Your task to perform on an android device: uninstall "Upside-Cash back on gas & food" Image 0: 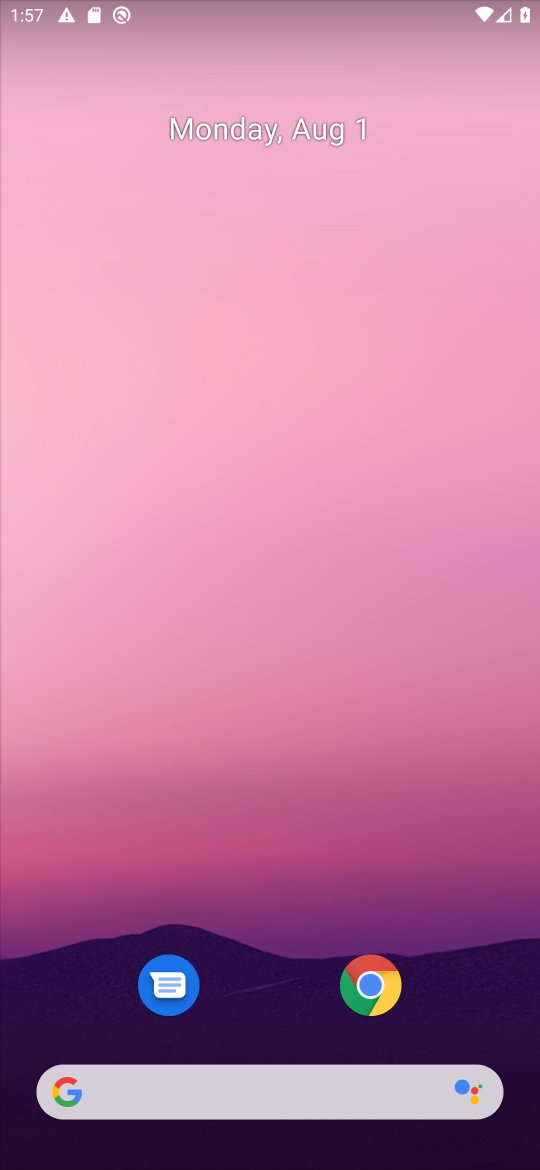
Step 0: drag from (273, 1126) to (234, 97)
Your task to perform on an android device: uninstall "Upside-Cash back on gas & food" Image 1: 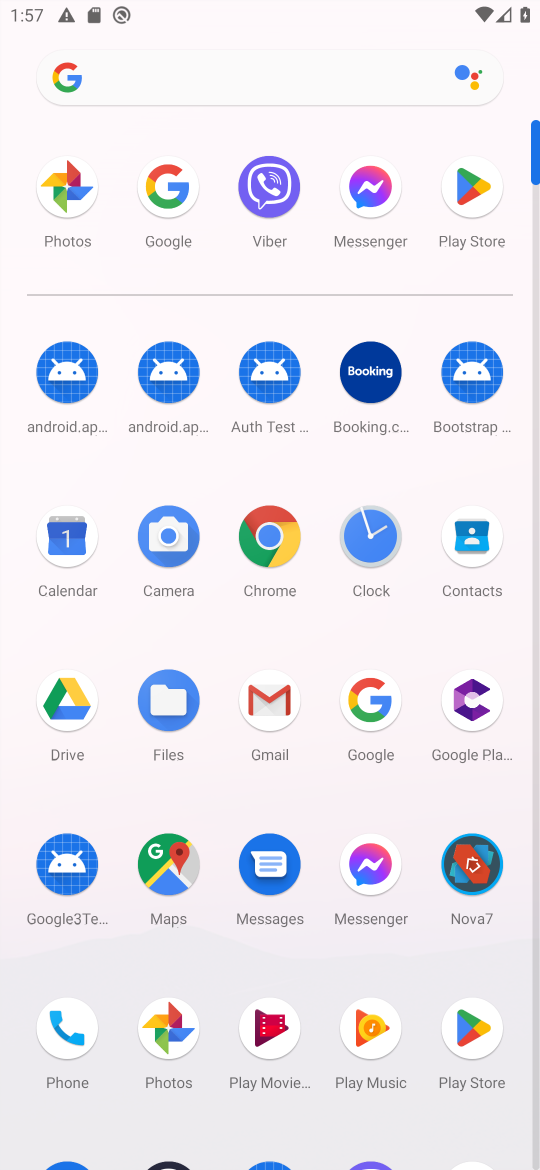
Step 1: click (468, 1023)
Your task to perform on an android device: uninstall "Upside-Cash back on gas & food" Image 2: 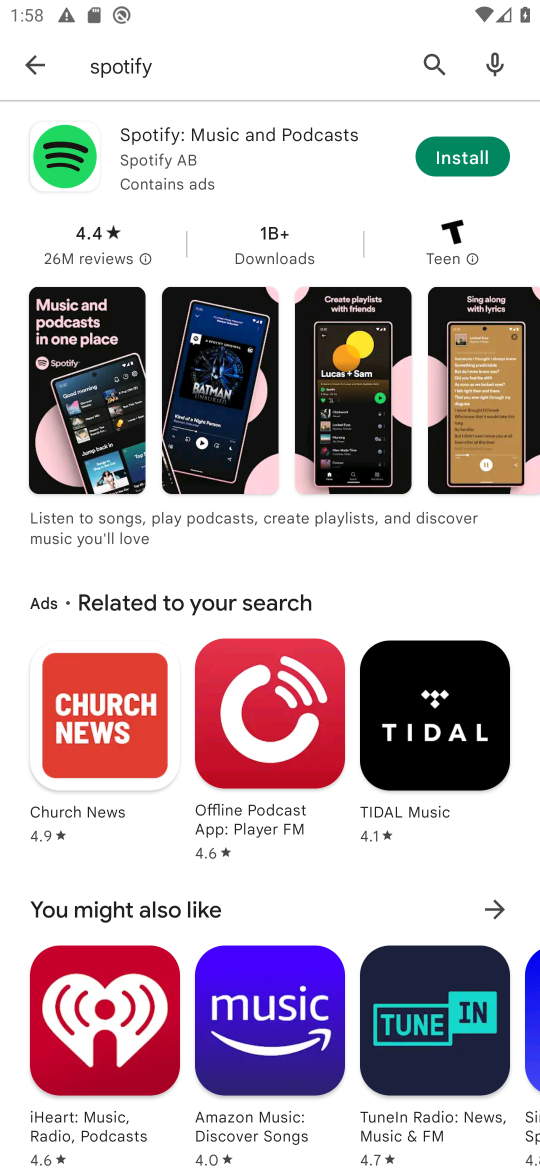
Step 2: click (431, 54)
Your task to perform on an android device: uninstall "Upside-Cash back on gas & food" Image 3: 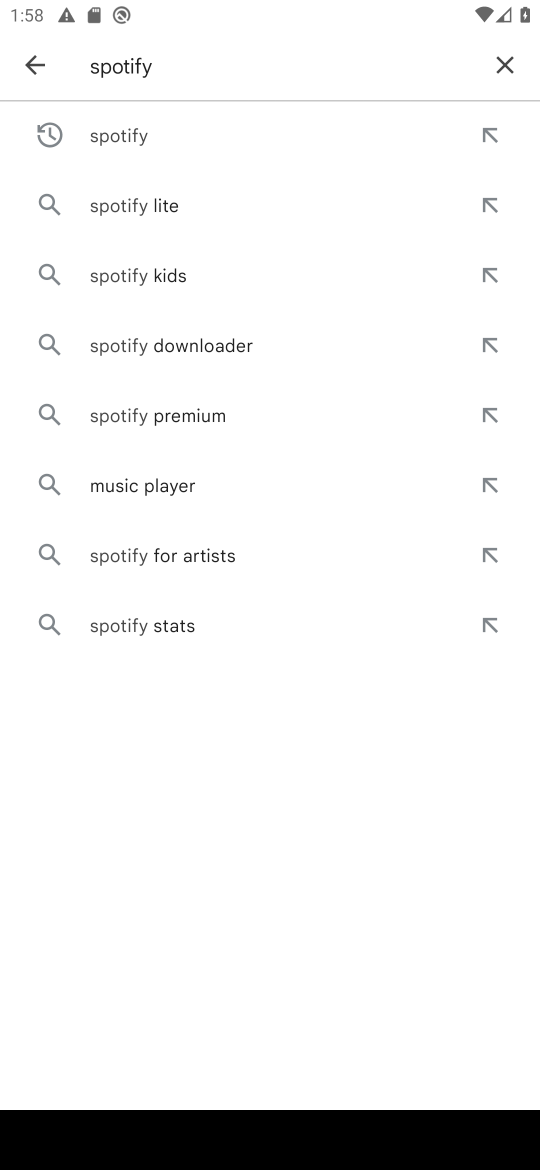
Step 3: click (497, 60)
Your task to perform on an android device: uninstall "Upside-Cash back on gas & food" Image 4: 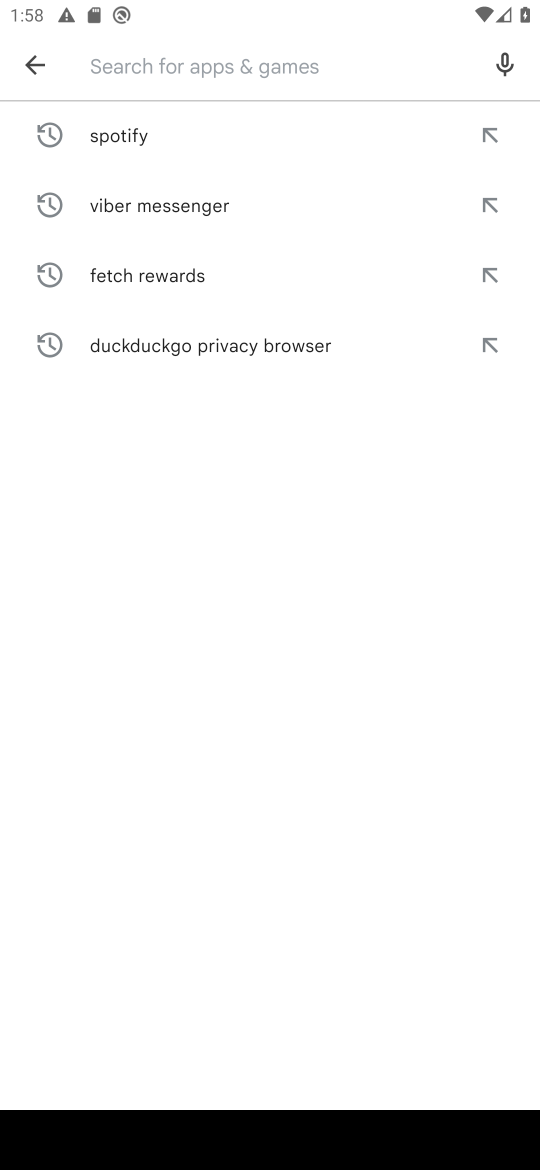
Step 4: type "Upside-Cash back on gas & food"
Your task to perform on an android device: uninstall "Upside-Cash back on gas & food" Image 5: 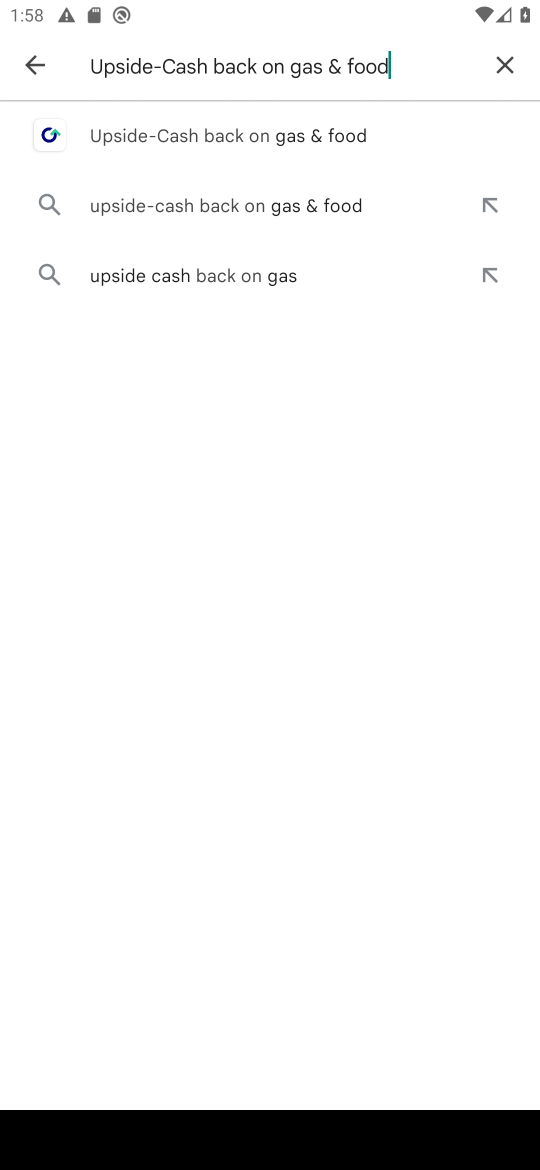
Step 5: type ""
Your task to perform on an android device: uninstall "Upside-Cash back on gas & food" Image 6: 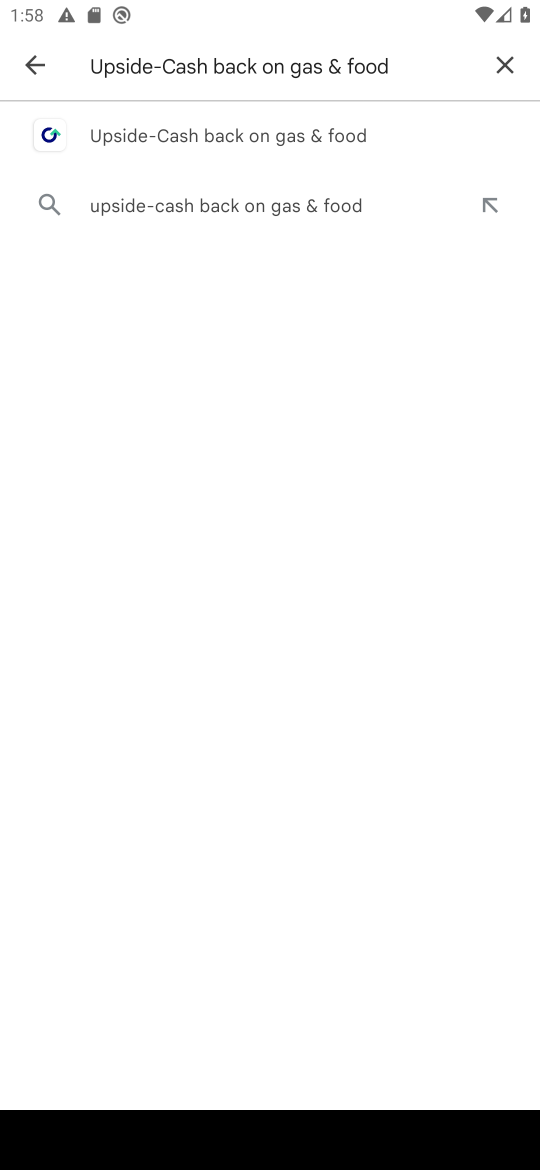
Step 6: click (236, 141)
Your task to perform on an android device: uninstall "Upside-Cash back on gas & food" Image 7: 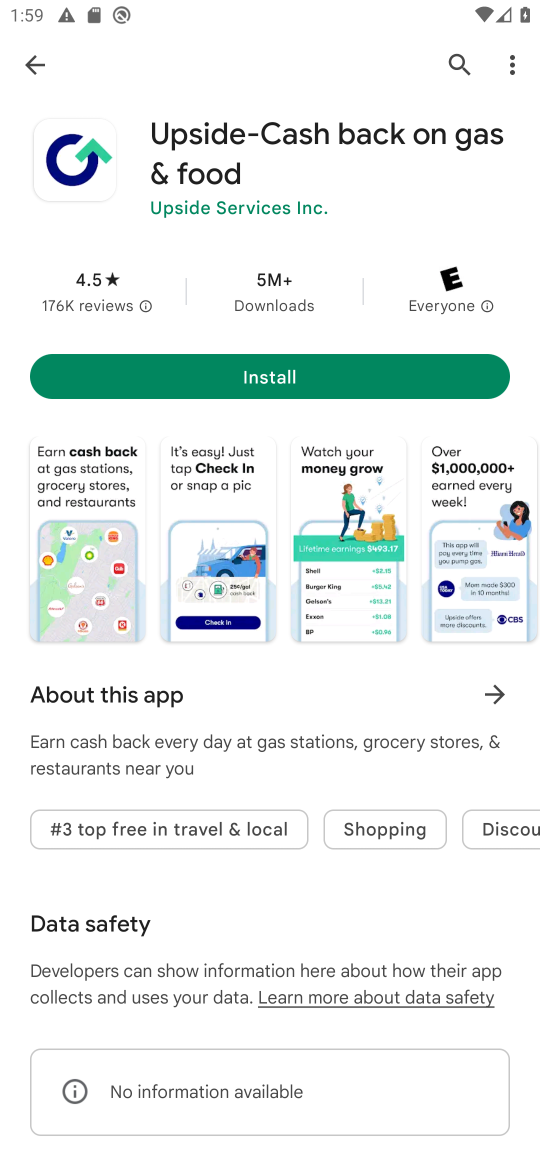
Step 7: task complete